Your task to perform on an android device: visit the assistant section in the google photos Image 0: 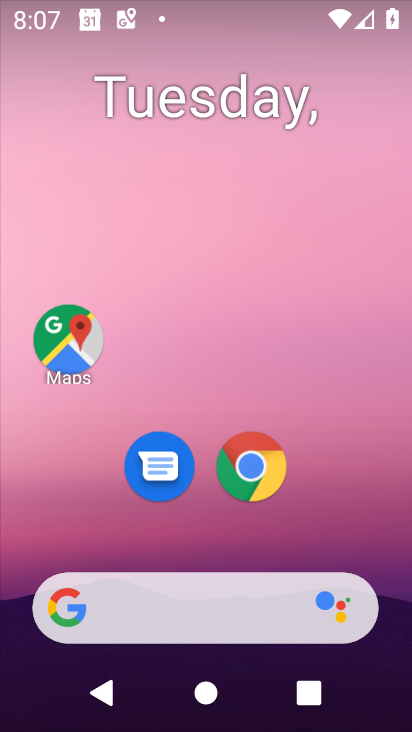
Step 0: drag from (352, 505) to (355, 196)
Your task to perform on an android device: visit the assistant section in the google photos Image 1: 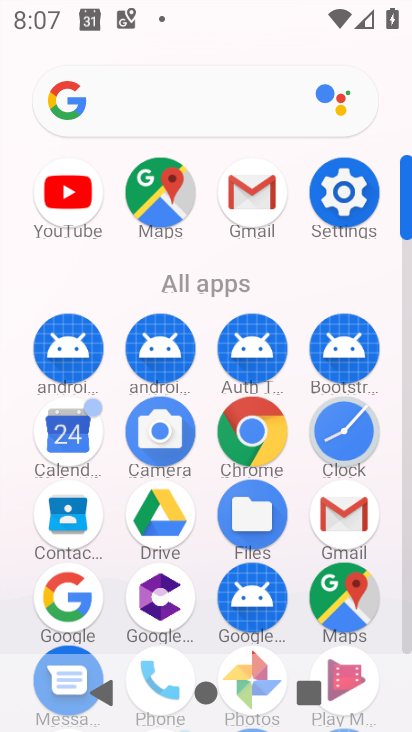
Step 1: click (253, 651)
Your task to perform on an android device: visit the assistant section in the google photos Image 2: 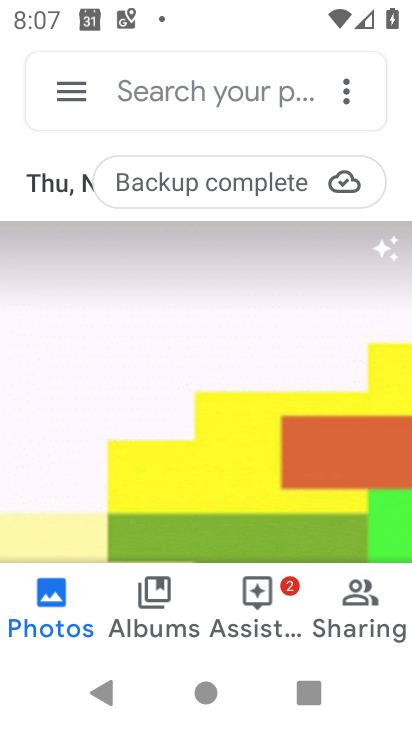
Step 2: click (248, 596)
Your task to perform on an android device: visit the assistant section in the google photos Image 3: 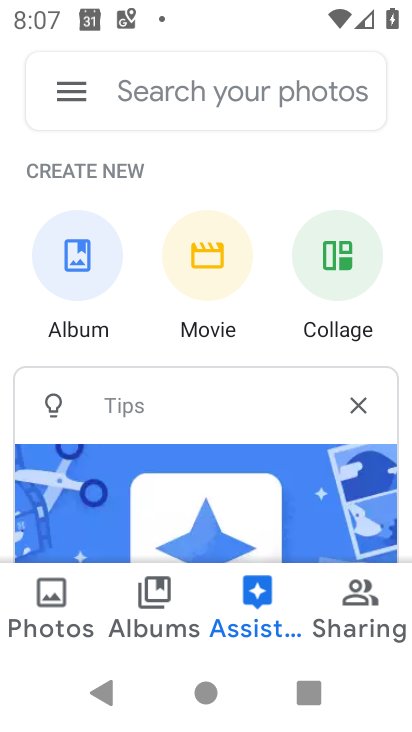
Step 3: task complete